Your task to perform on an android device: show emergency info Image 0: 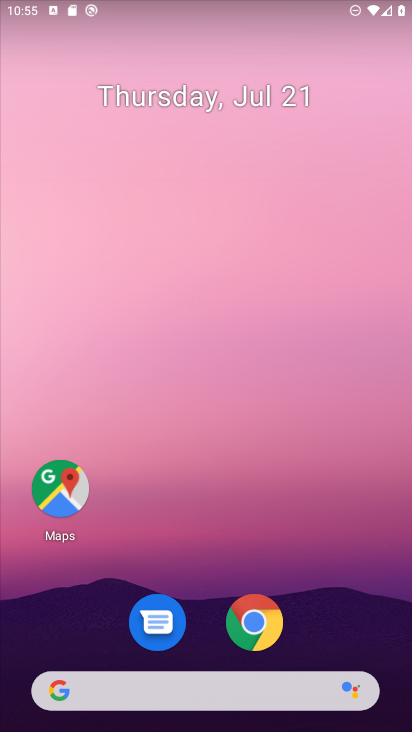
Step 0: drag from (178, 715) to (64, 119)
Your task to perform on an android device: show emergency info Image 1: 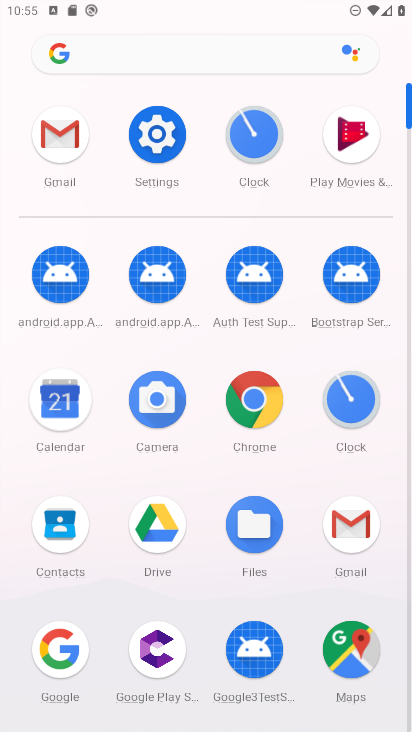
Step 1: click (148, 130)
Your task to perform on an android device: show emergency info Image 2: 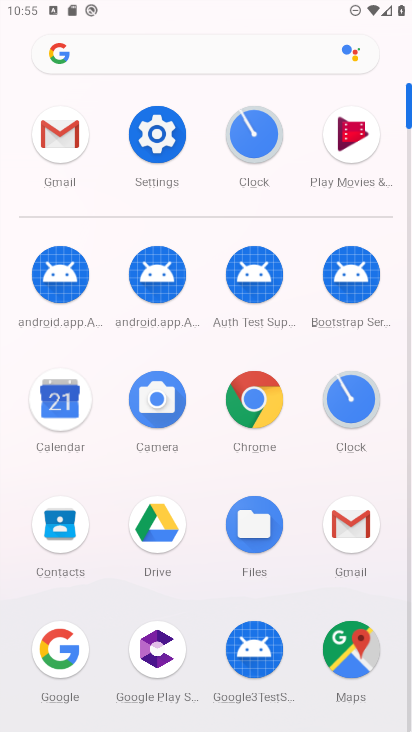
Step 2: click (148, 130)
Your task to perform on an android device: show emergency info Image 3: 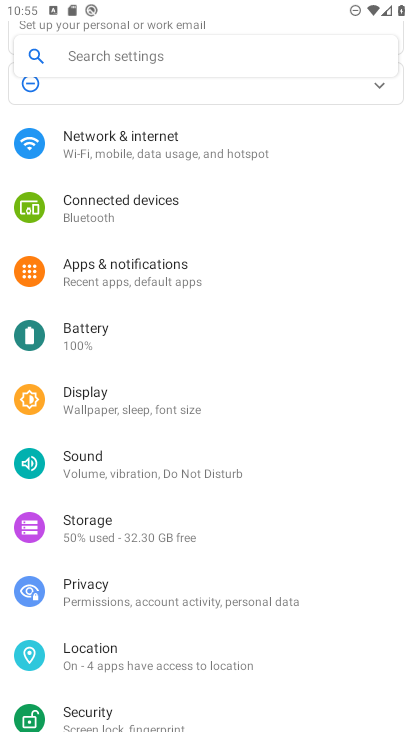
Step 3: drag from (235, 567) to (193, 6)
Your task to perform on an android device: show emergency info Image 4: 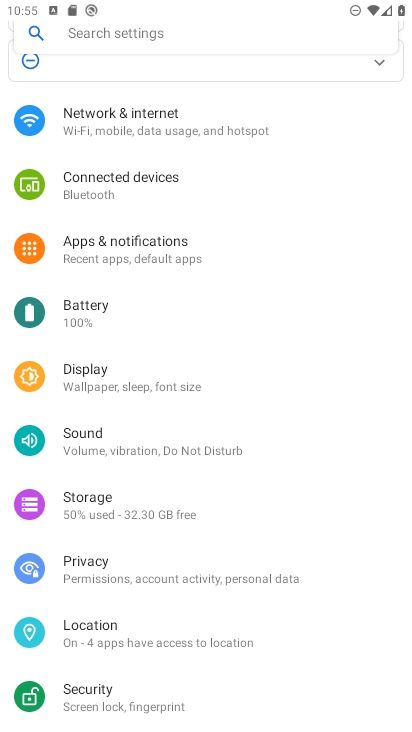
Step 4: drag from (192, 574) to (205, 27)
Your task to perform on an android device: show emergency info Image 5: 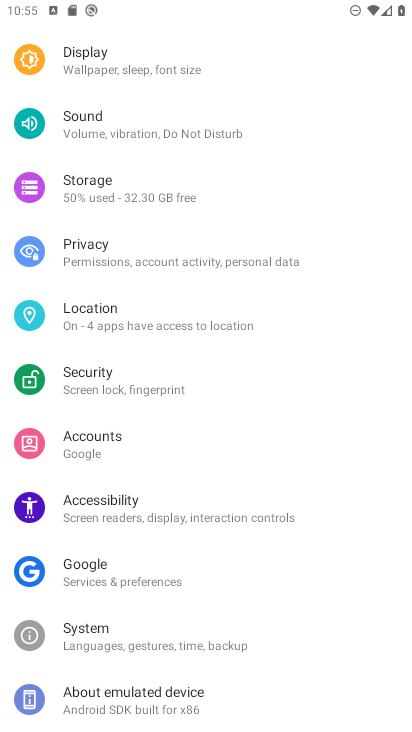
Step 5: drag from (136, 669) to (152, 179)
Your task to perform on an android device: show emergency info Image 6: 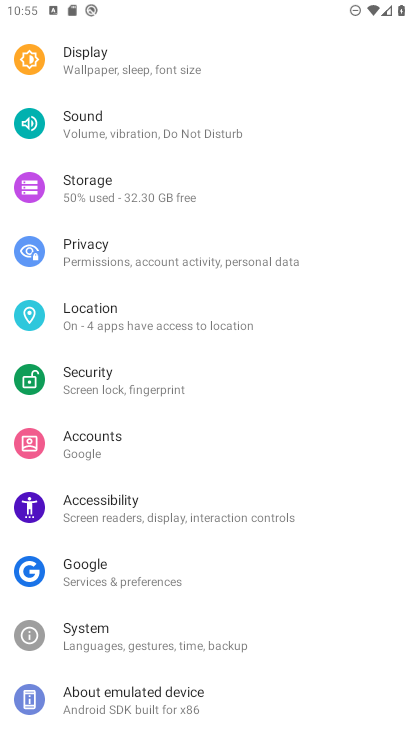
Step 6: click (203, 701)
Your task to perform on an android device: show emergency info Image 7: 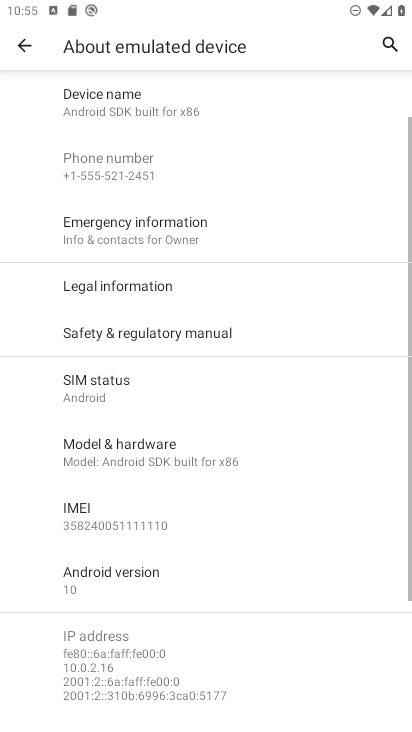
Step 7: click (192, 223)
Your task to perform on an android device: show emergency info Image 8: 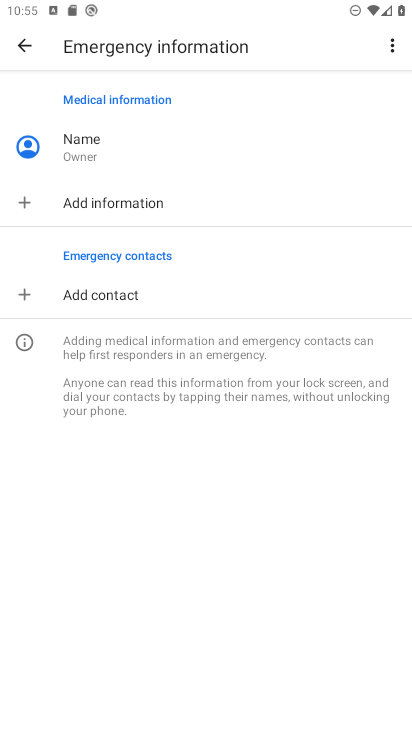
Step 8: task complete